Your task to perform on an android device: turn on data saver in the chrome app Image 0: 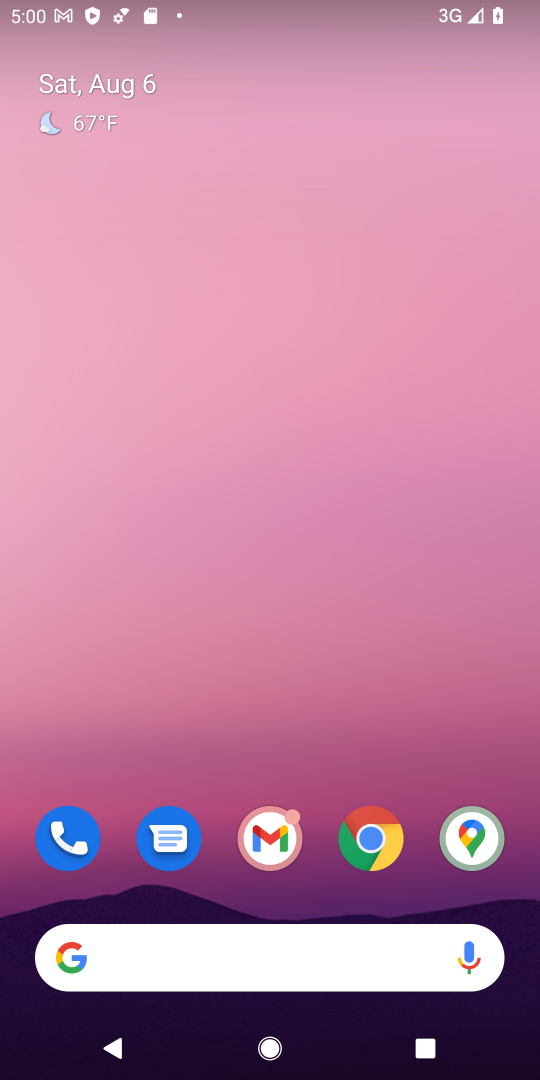
Step 0: press home button
Your task to perform on an android device: turn on data saver in the chrome app Image 1: 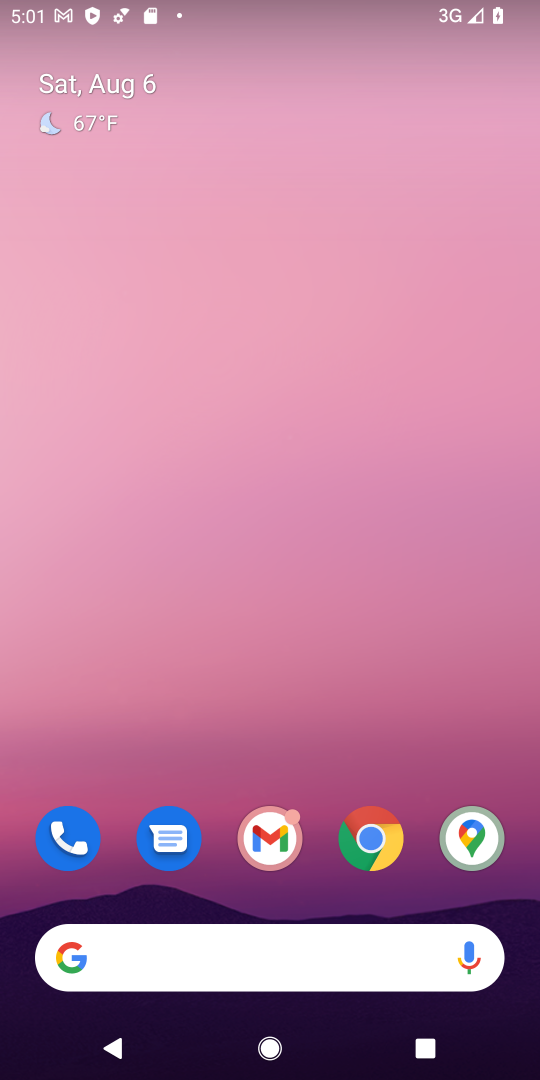
Step 1: click (392, 832)
Your task to perform on an android device: turn on data saver in the chrome app Image 2: 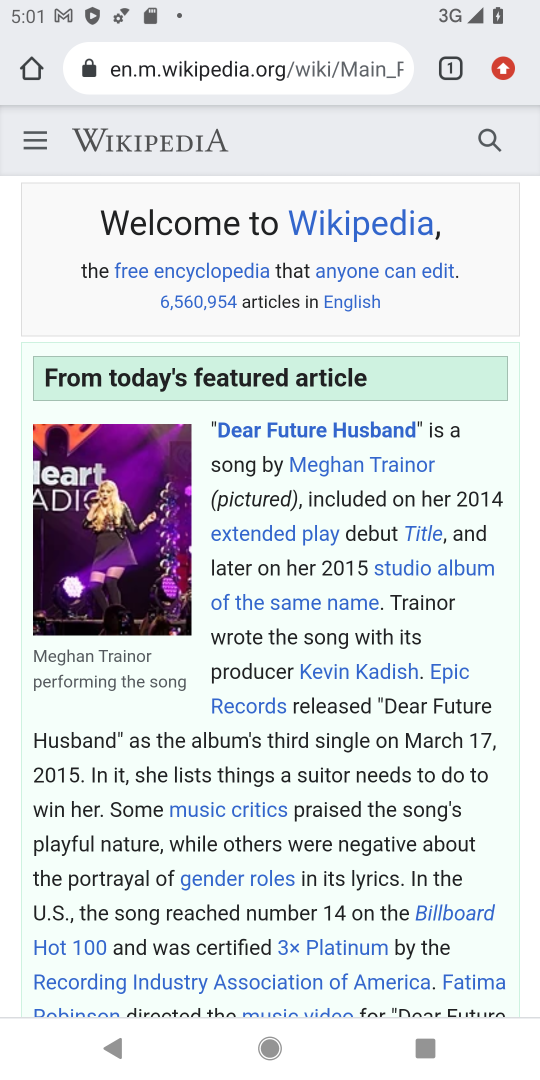
Step 2: click (510, 80)
Your task to perform on an android device: turn on data saver in the chrome app Image 3: 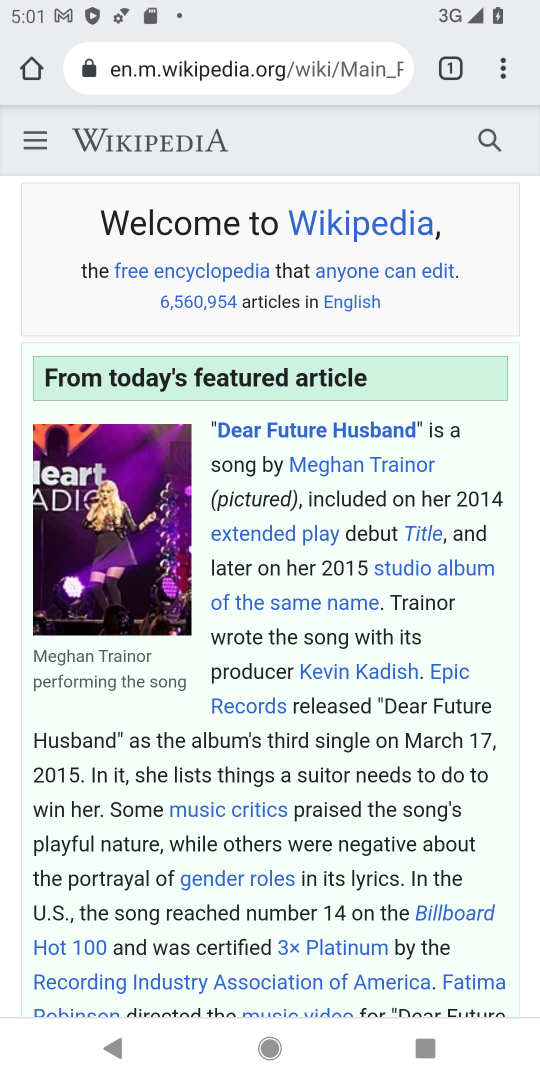
Step 3: task complete